Your task to perform on an android device: Open the calendar app, open the side menu, and click the "Day" option Image 0: 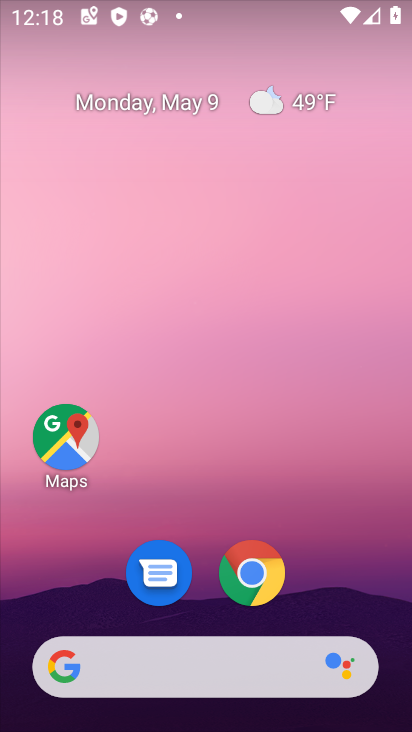
Step 0: drag from (295, 717) to (288, 17)
Your task to perform on an android device: Open the calendar app, open the side menu, and click the "Day" option Image 1: 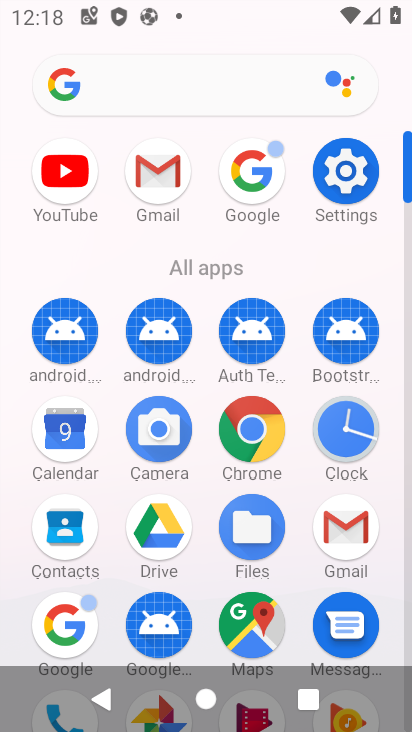
Step 1: click (65, 432)
Your task to perform on an android device: Open the calendar app, open the side menu, and click the "Day" option Image 2: 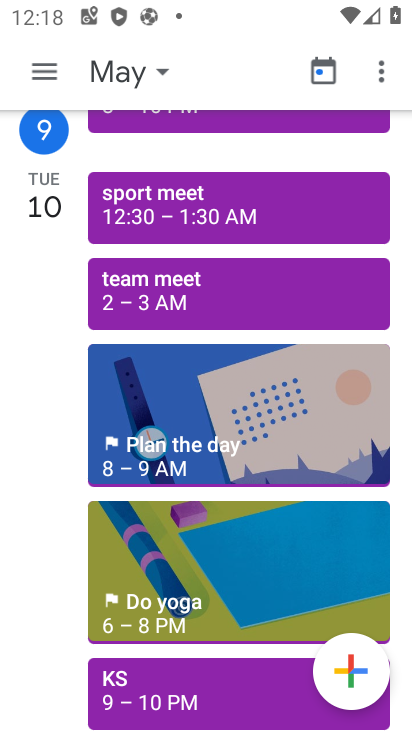
Step 2: click (41, 74)
Your task to perform on an android device: Open the calendar app, open the side menu, and click the "Day" option Image 3: 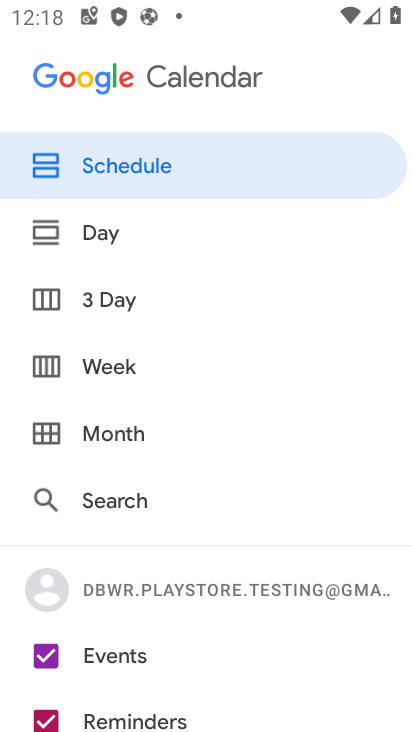
Step 3: click (112, 241)
Your task to perform on an android device: Open the calendar app, open the side menu, and click the "Day" option Image 4: 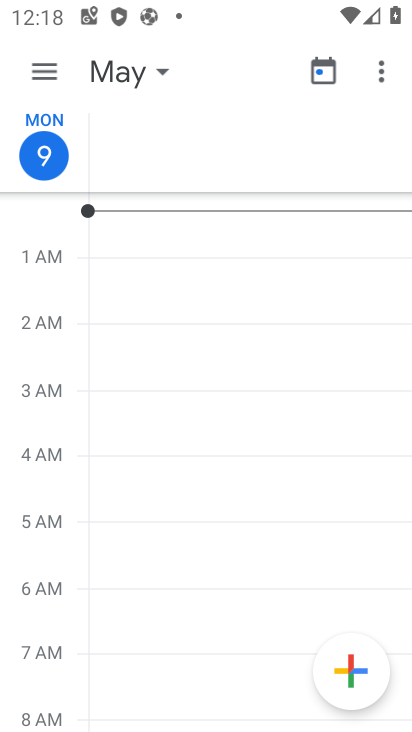
Step 4: task complete